Your task to perform on an android device: Open Yahoo.com Image 0: 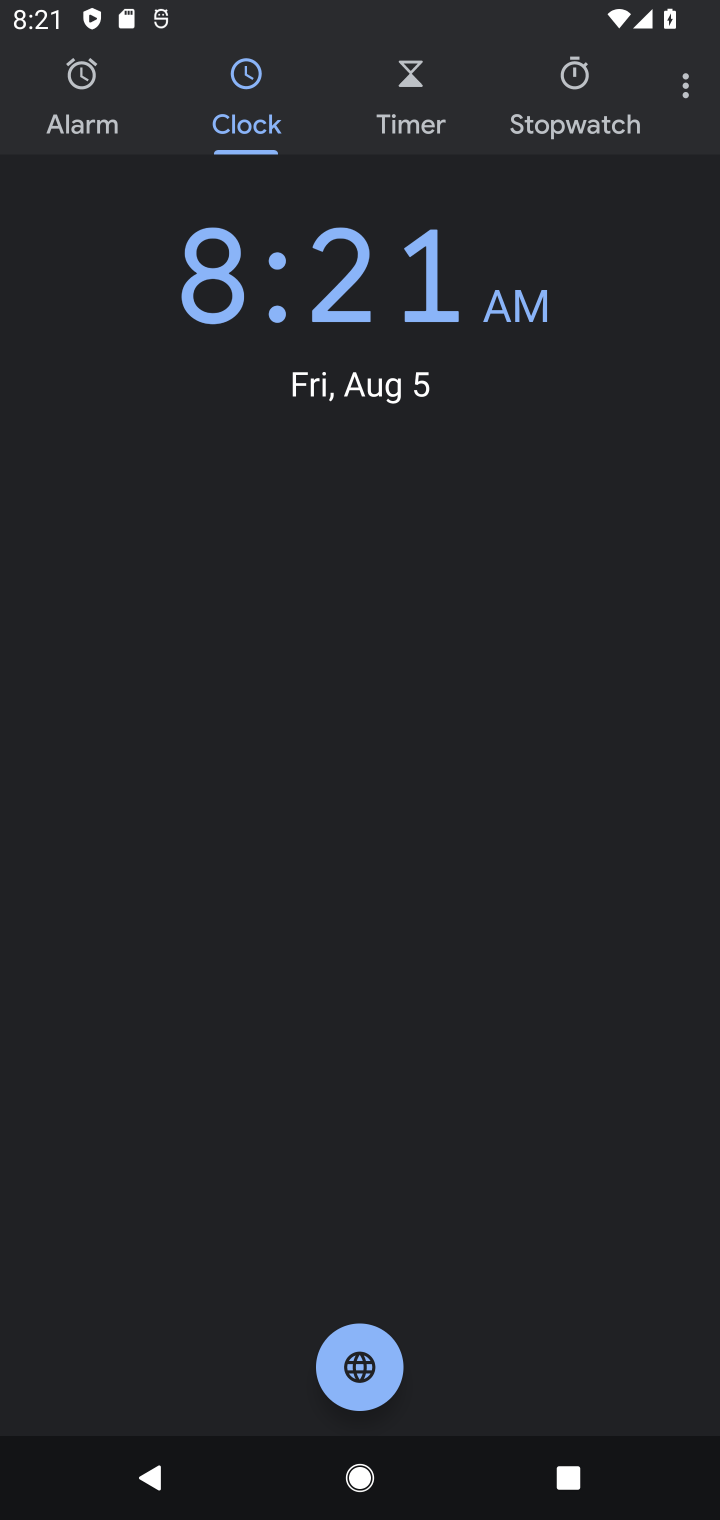
Step 0: press back button
Your task to perform on an android device: Open Yahoo.com Image 1: 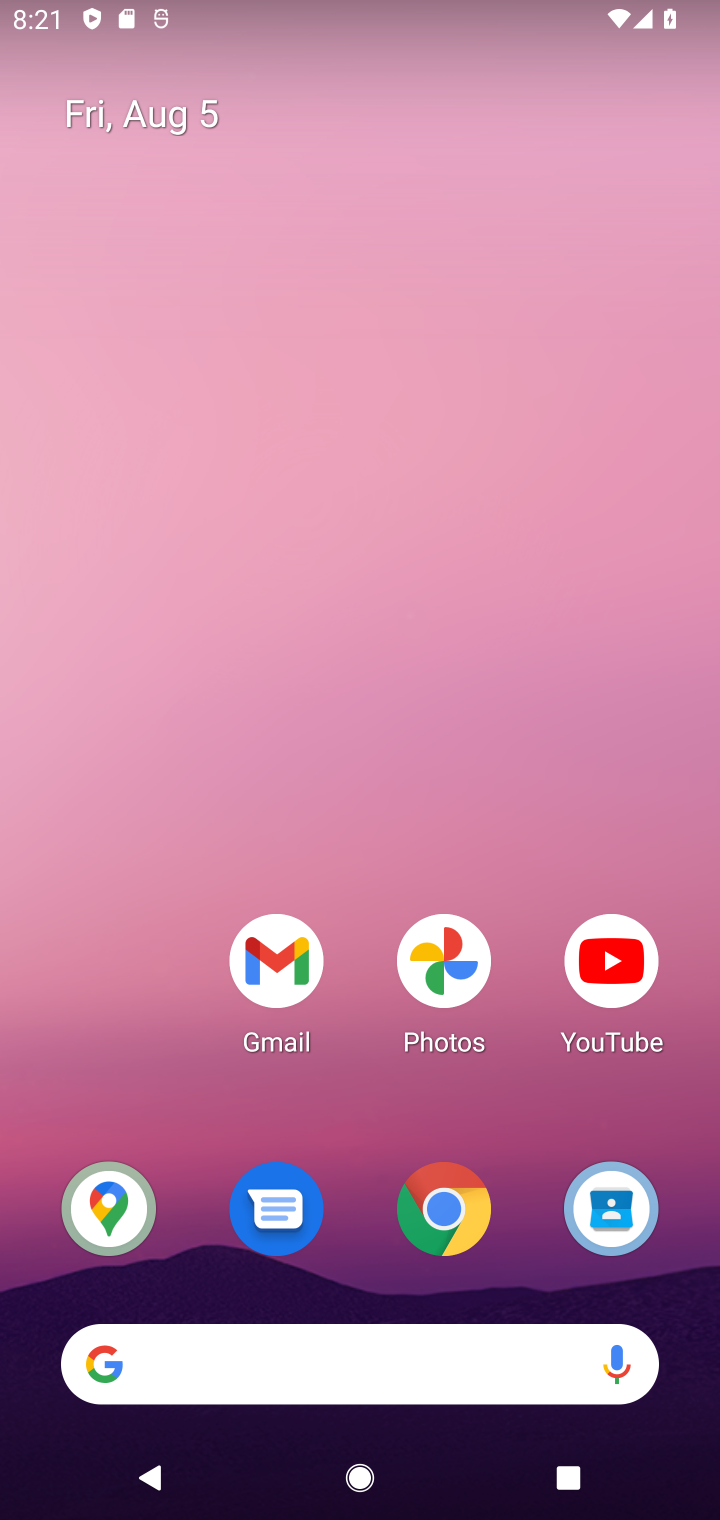
Step 1: click (453, 1187)
Your task to perform on an android device: Open Yahoo.com Image 2: 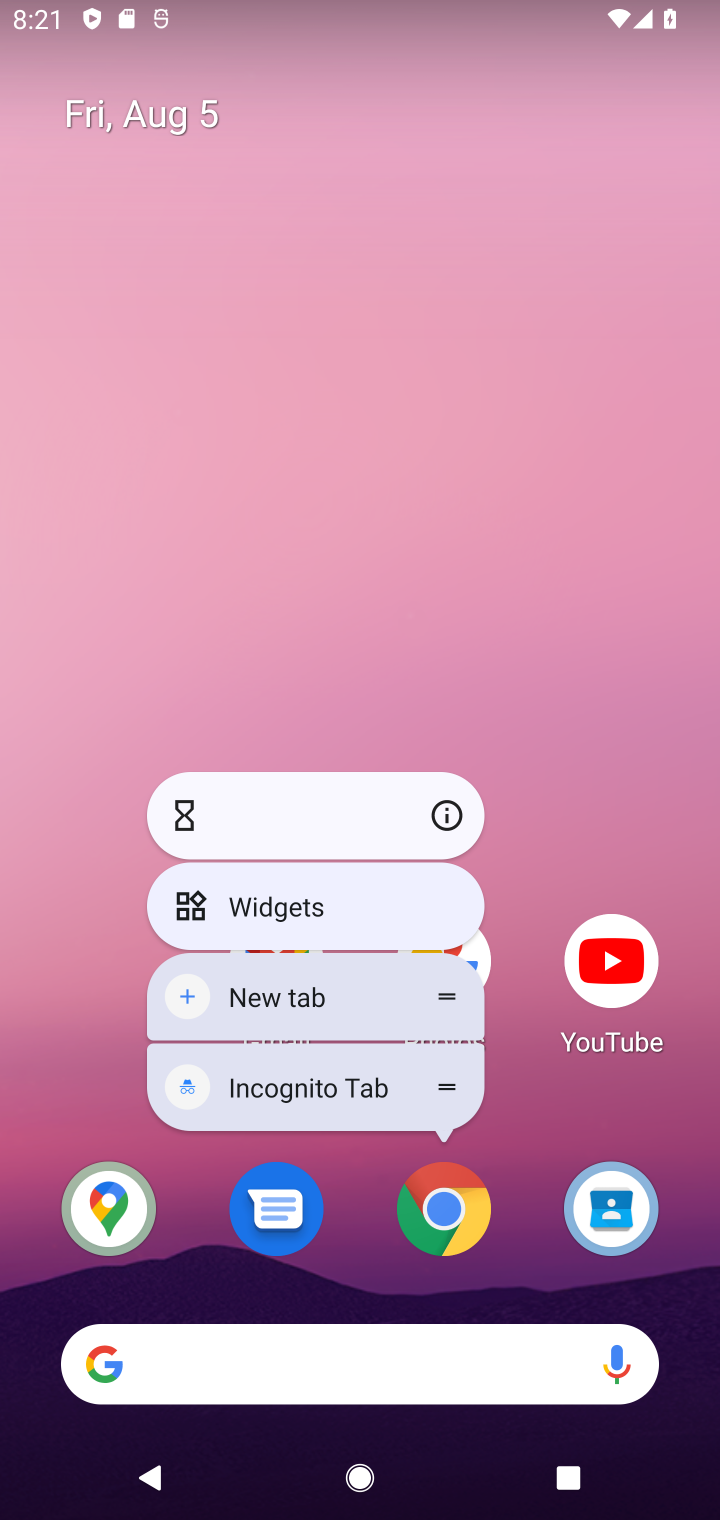
Step 2: click (450, 1200)
Your task to perform on an android device: Open Yahoo.com Image 3: 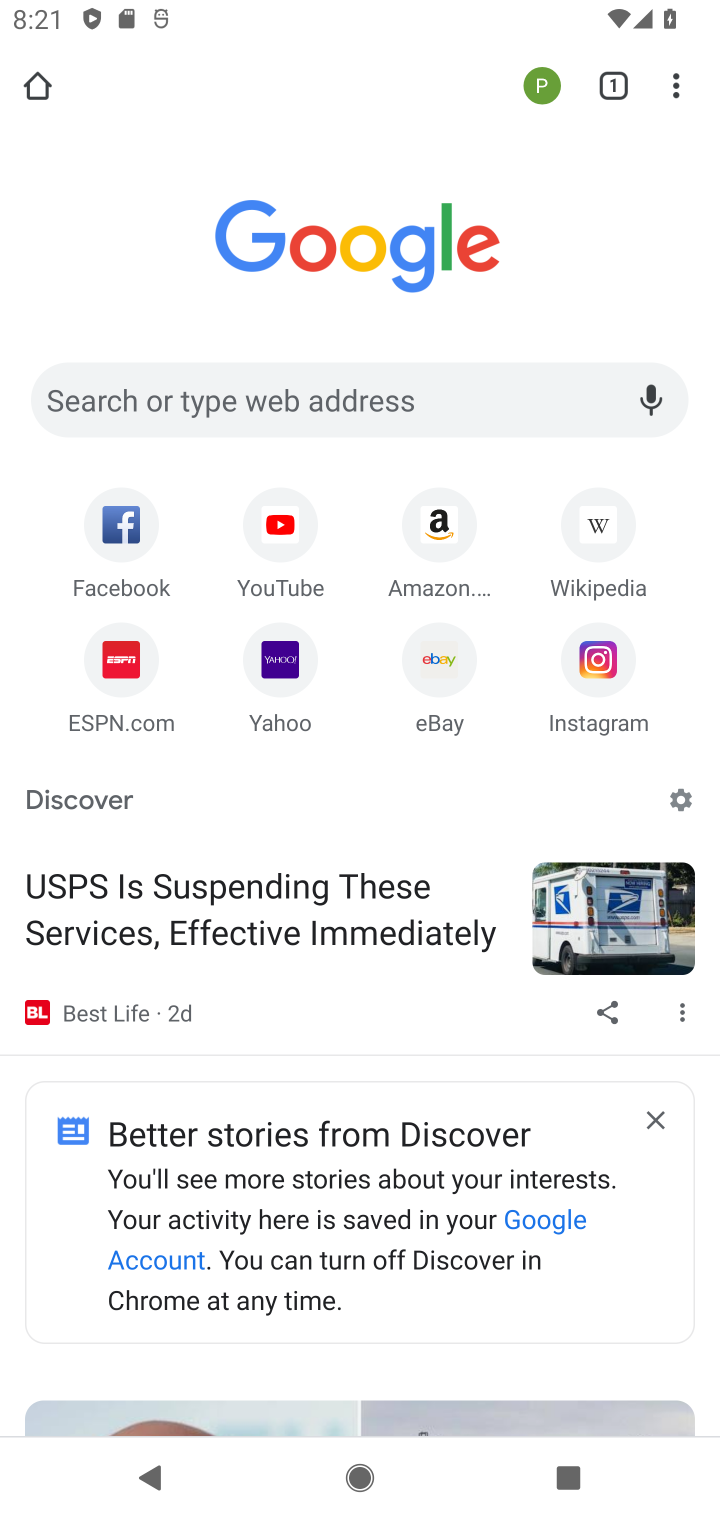
Step 3: click (269, 681)
Your task to perform on an android device: Open Yahoo.com Image 4: 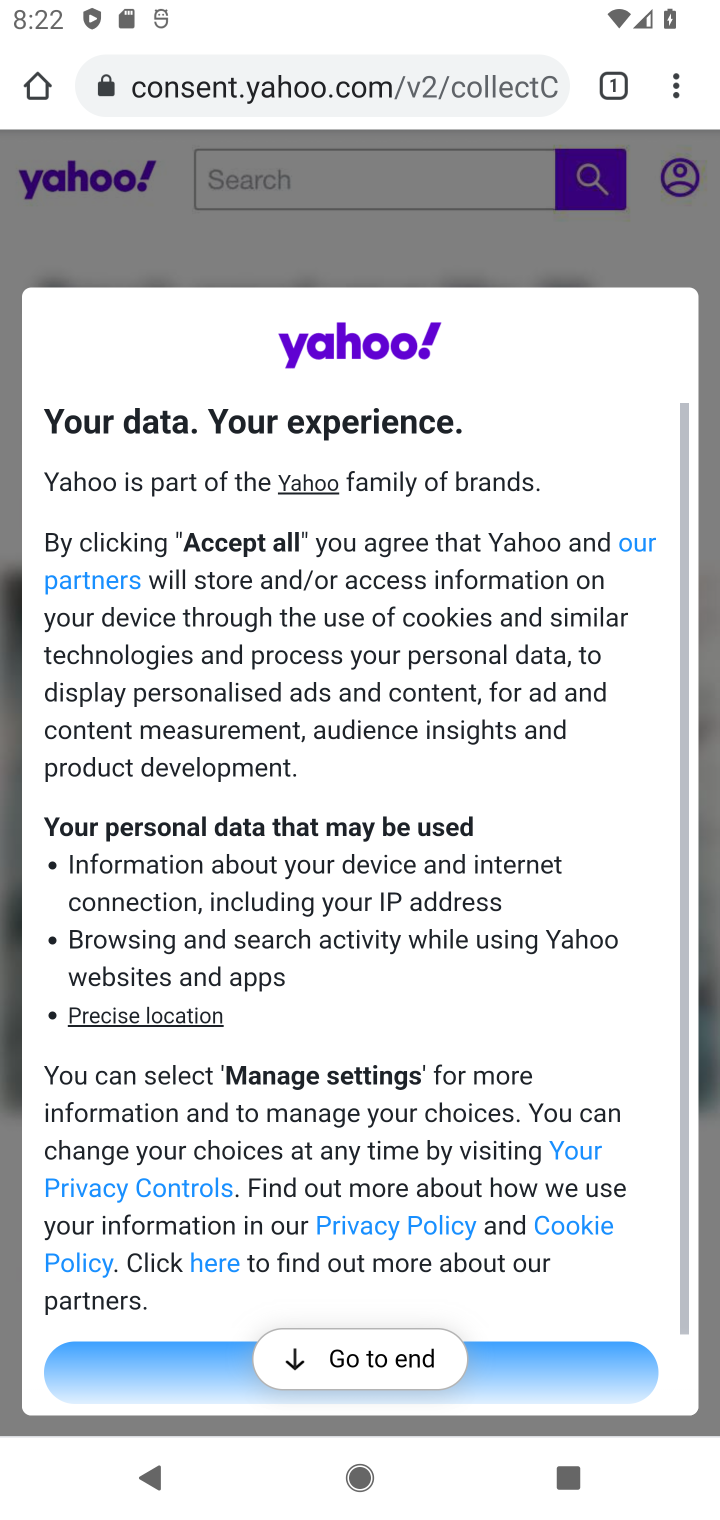
Step 4: task complete